Your task to perform on an android device: Go to accessibility settings Image 0: 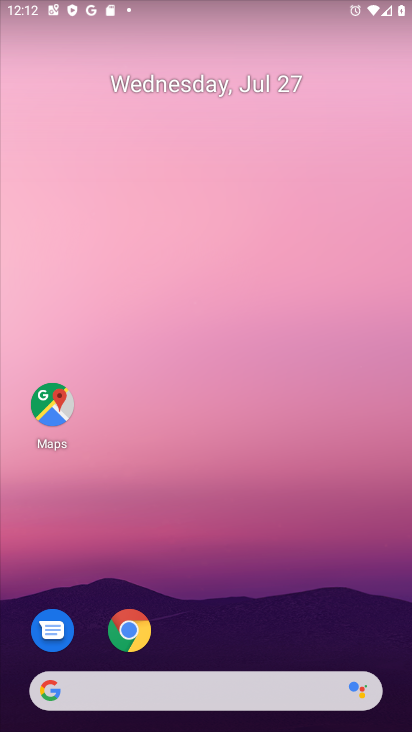
Step 0: drag from (117, 717) to (134, 0)
Your task to perform on an android device: Go to accessibility settings Image 1: 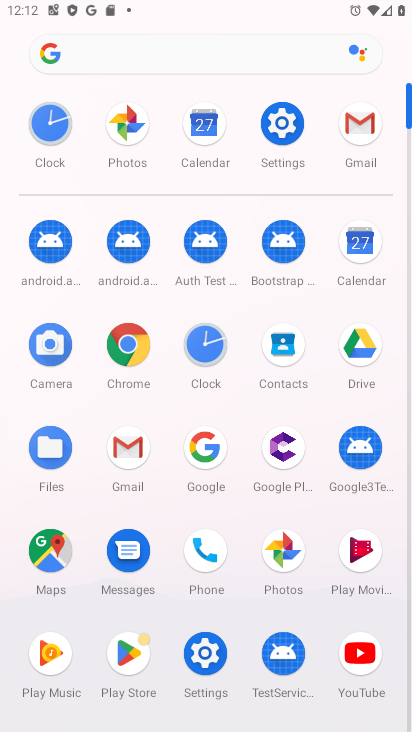
Step 1: click (274, 141)
Your task to perform on an android device: Go to accessibility settings Image 2: 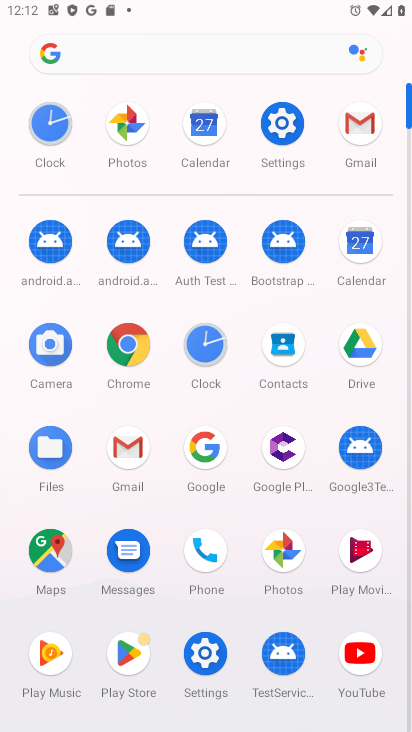
Step 2: click (274, 141)
Your task to perform on an android device: Go to accessibility settings Image 3: 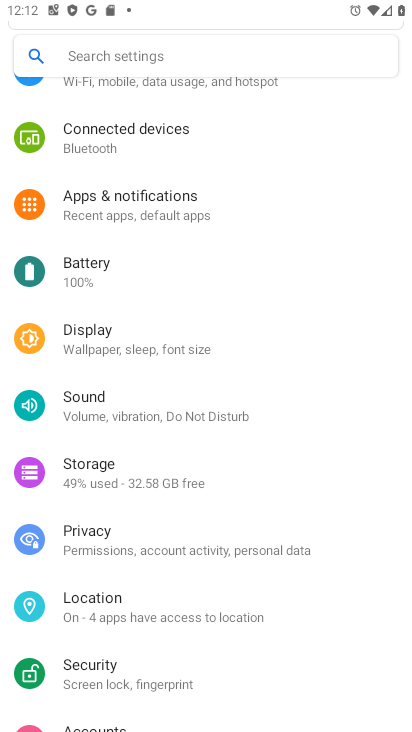
Step 3: drag from (318, 659) to (275, 84)
Your task to perform on an android device: Go to accessibility settings Image 4: 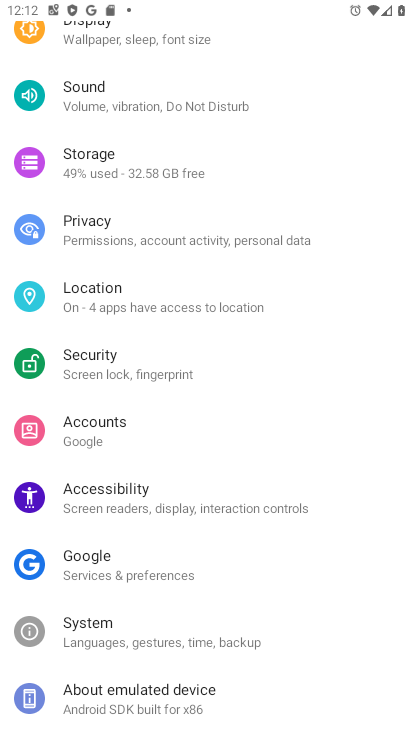
Step 4: click (193, 498)
Your task to perform on an android device: Go to accessibility settings Image 5: 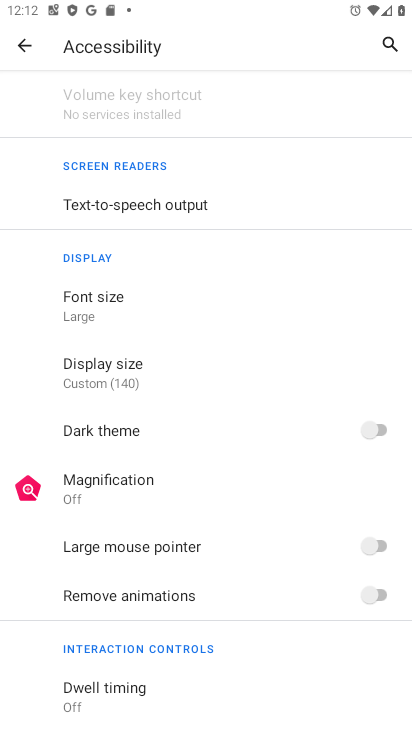
Step 5: task complete